Your task to perform on an android device: toggle javascript in the chrome app Image 0: 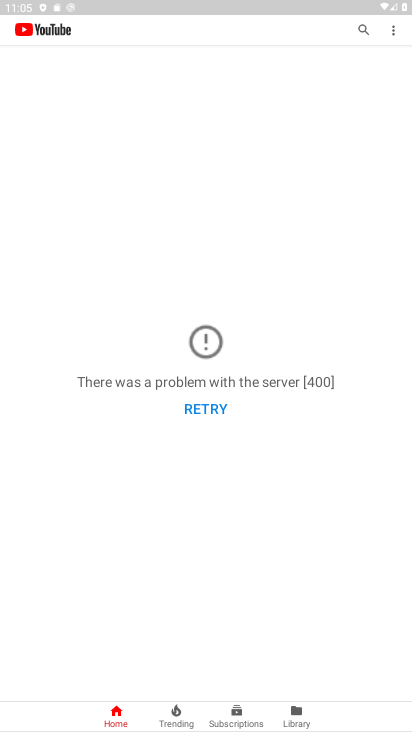
Step 0: press home button
Your task to perform on an android device: toggle javascript in the chrome app Image 1: 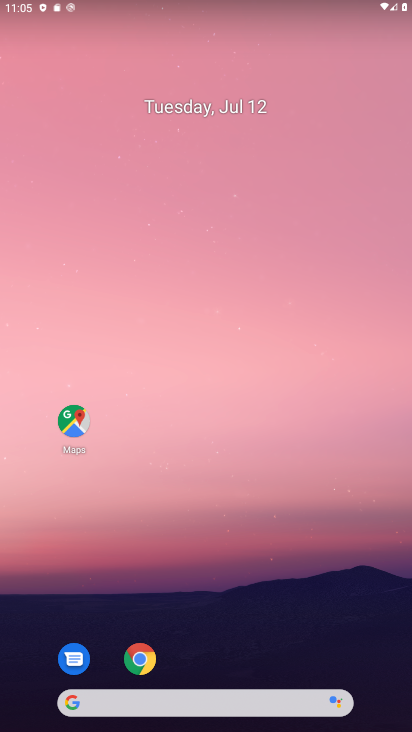
Step 1: click (130, 662)
Your task to perform on an android device: toggle javascript in the chrome app Image 2: 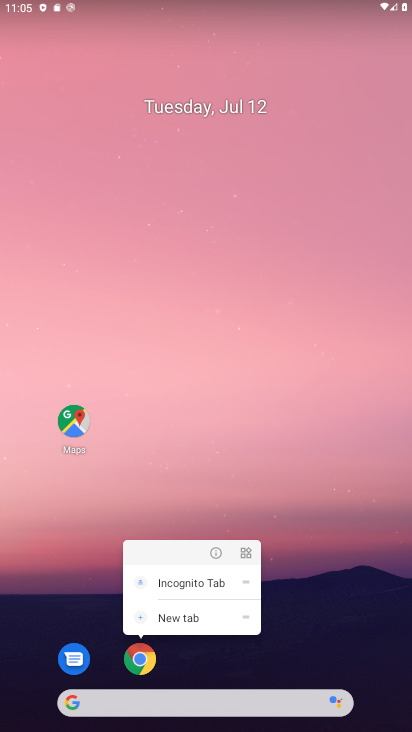
Step 2: click (139, 653)
Your task to perform on an android device: toggle javascript in the chrome app Image 3: 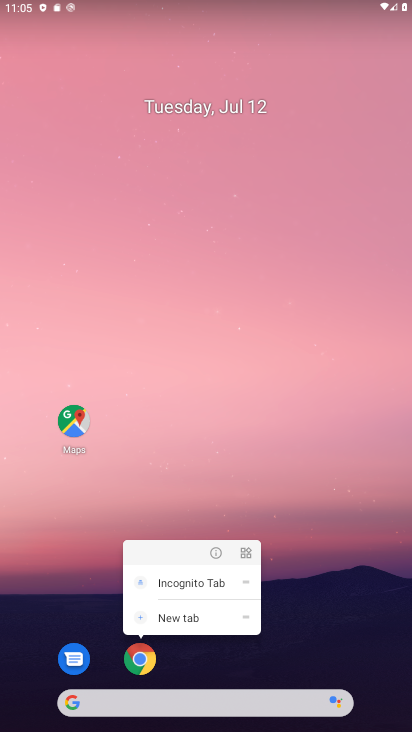
Step 3: click (141, 657)
Your task to perform on an android device: toggle javascript in the chrome app Image 4: 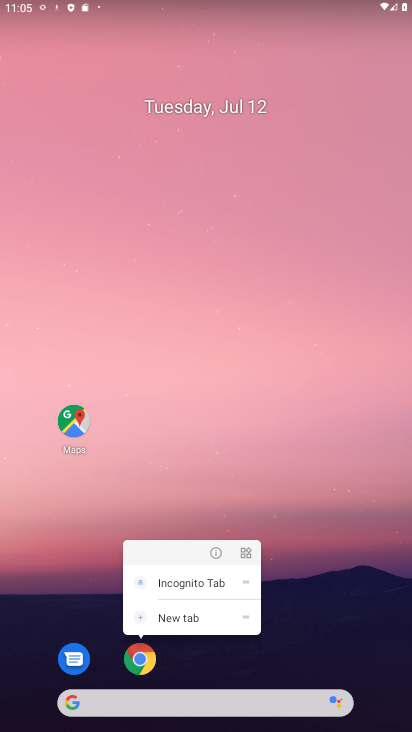
Step 4: click (137, 661)
Your task to perform on an android device: toggle javascript in the chrome app Image 5: 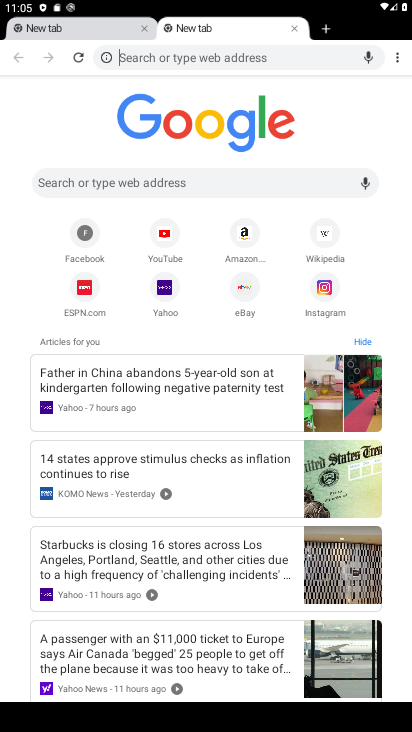
Step 5: click (397, 58)
Your task to perform on an android device: toggle javascript in the chrome app Image 6: 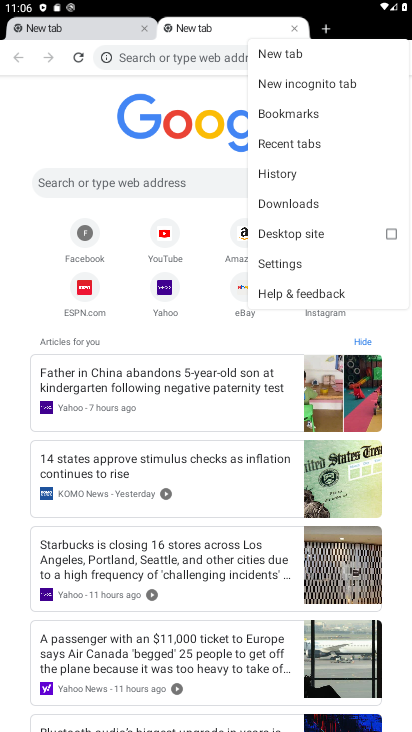
Step 6: click (284, 264)
Your task to perform on an android device: toggle javascript in the chrome app Image 7: 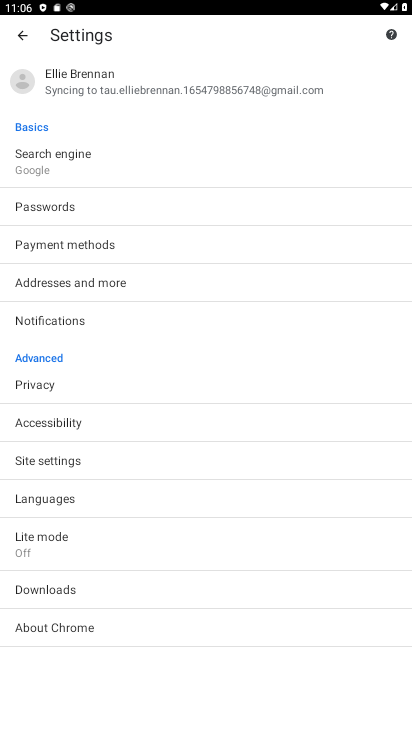
Step 7: click (72, 457)
Your task to perform on an android device: toggle javascript in the chrome app Image 8: 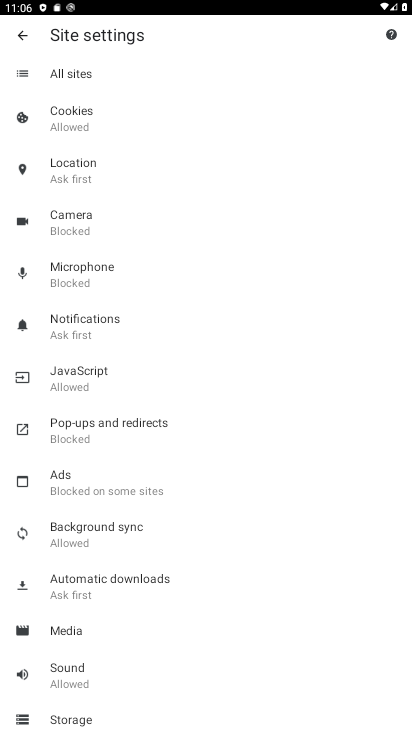
Step 8: click (86, 383)
Your task to perform on an android device: toggle javascript in the chrome app Image 9: 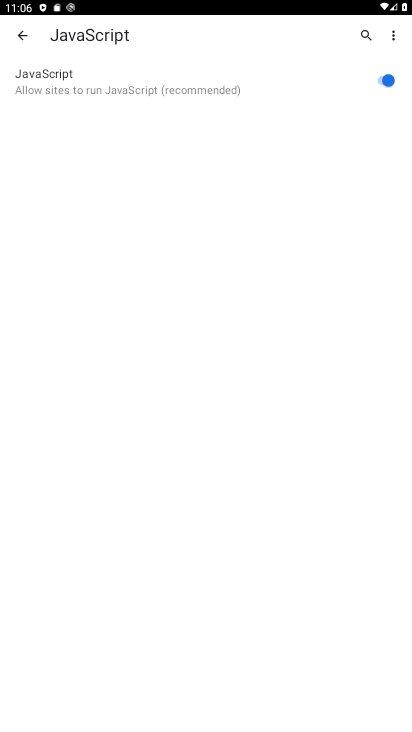
Step 9: task complete